Your task to perform on an android device: toggle improve location accuracy Image 0: 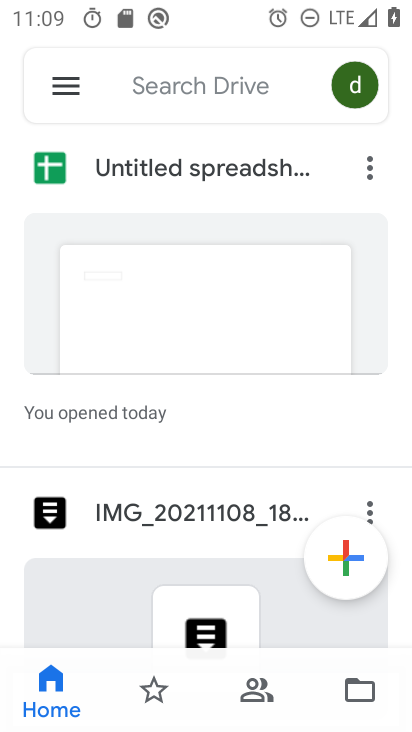
Step 0: press home button
Your task to perform on an android device: toggle improve location accuracy Image 1: 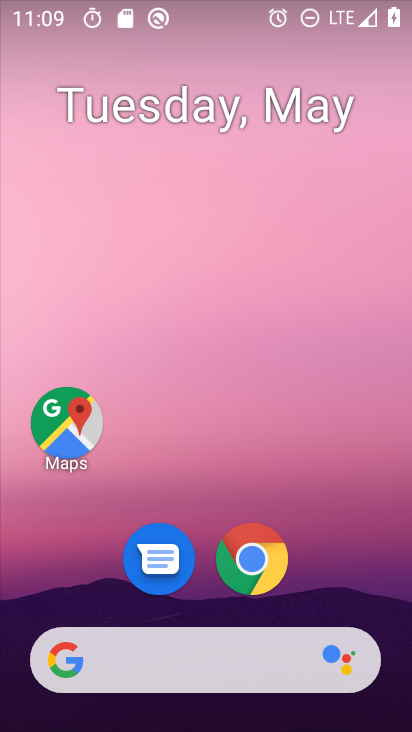
Step 1: drag from (388, 622) to (270, 72)
Your task to perform on an android device: toggle improve location accuracy Image 2: 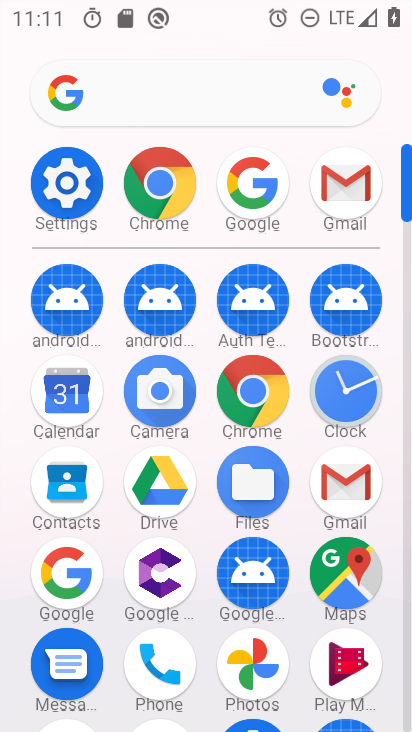
Step 2: click (75, 180)
Your task to perform on an android device: toggle improve location accuracy Image 3: 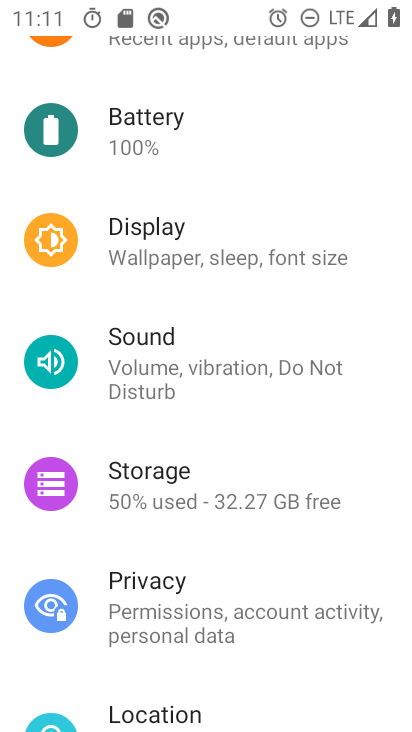
Step 3: click (189, 692)
Your task to perform on an android device: toggle improve location accuracy Image 4: 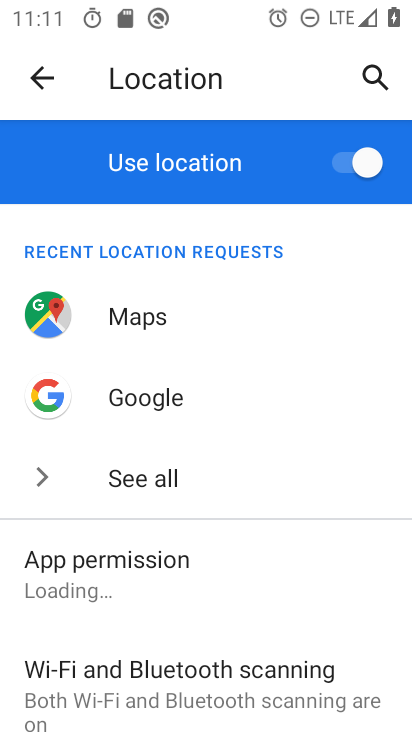
Step 4: drag from (187, 655) to (174, 268)
Your task to perform on an android device: toggle improve location accuracy Image 5: 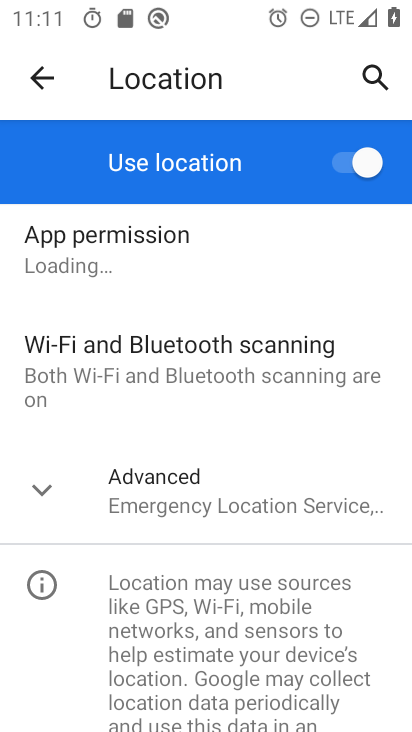
Step 5: click (151, 496)
Your task to perform on an android device: toggle improve location accuracy Image 6: 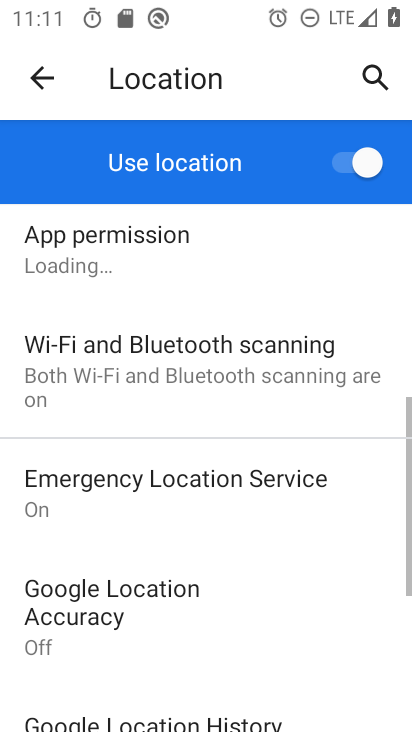
Step 6: click (196, 600)
Your task to perform on an android device: toggle improve location accuracy Image 7: 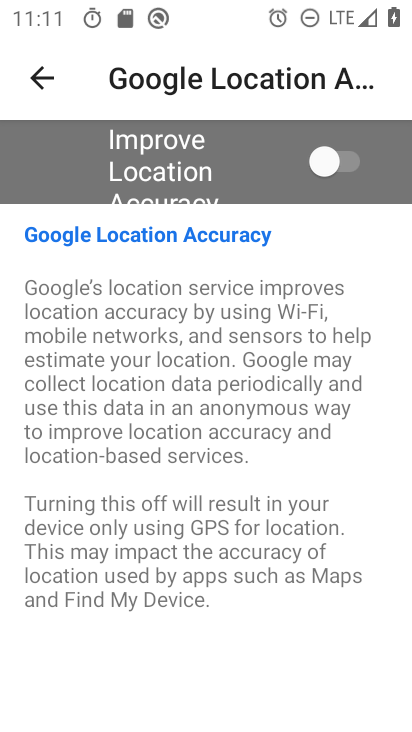
Step 7: click (328, 167)
Your task to perform on an android device: toggle improve location accuracy Image 8: 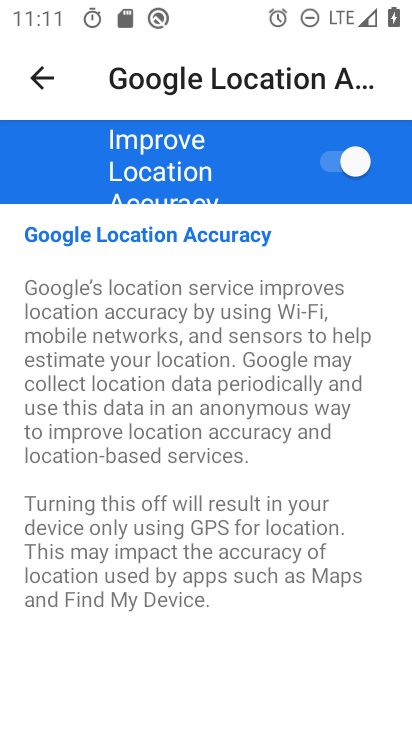
Step 8: task complete